Your task to perform on an android device: set the timer Image 0: 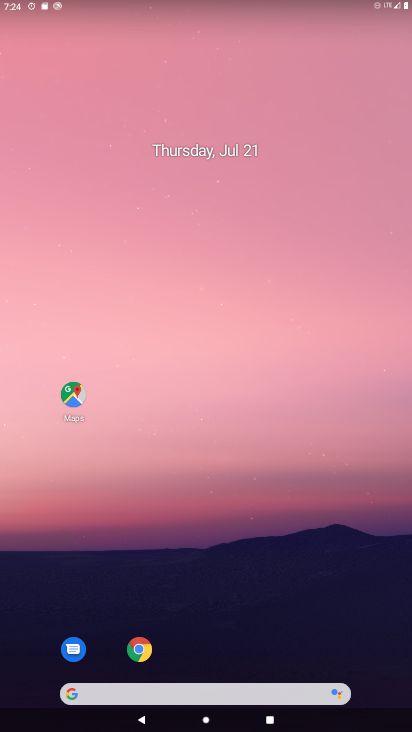
Step 0: drag from (326, 623) to (152, 0)
Your task to perform on an android device: set the timer Image 1: 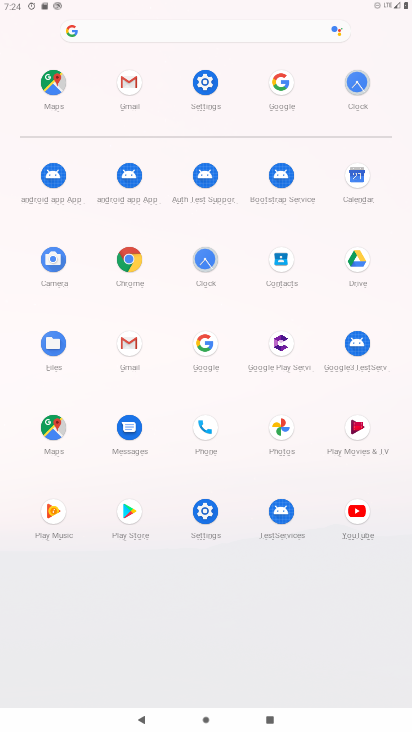
Step 1: click (205, 259)
Your task to perform on an android device: set the timer Image 2: 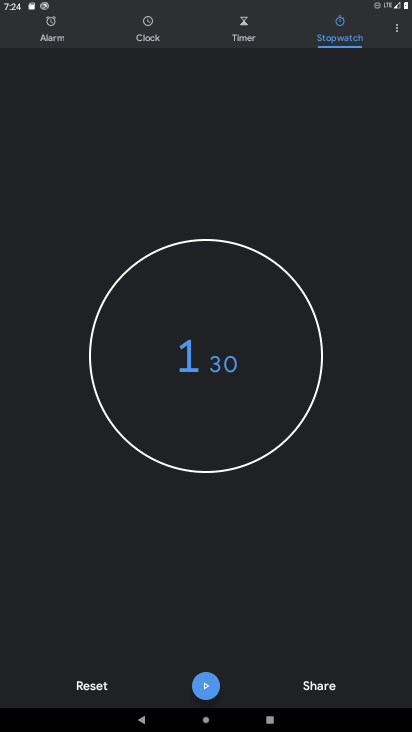
Step 2: click (257, 16)
Your task to perform on an android device: set the timer Image 3: 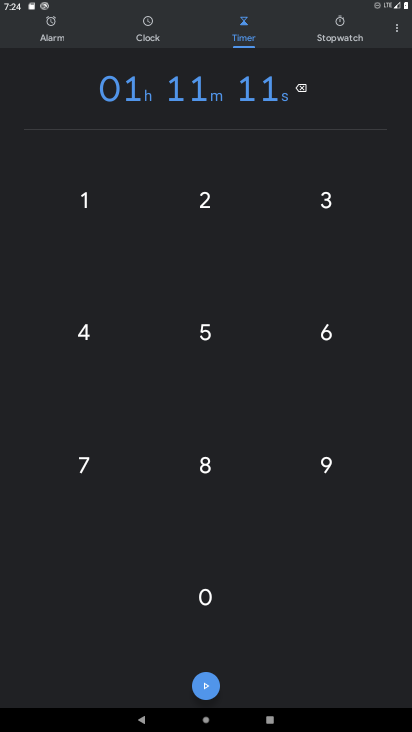
Step 3: task complete